Your task to perform on an android device: Search for usb-c on target.com, select the first entry, add it to the cart, then select checkout. Image 0: 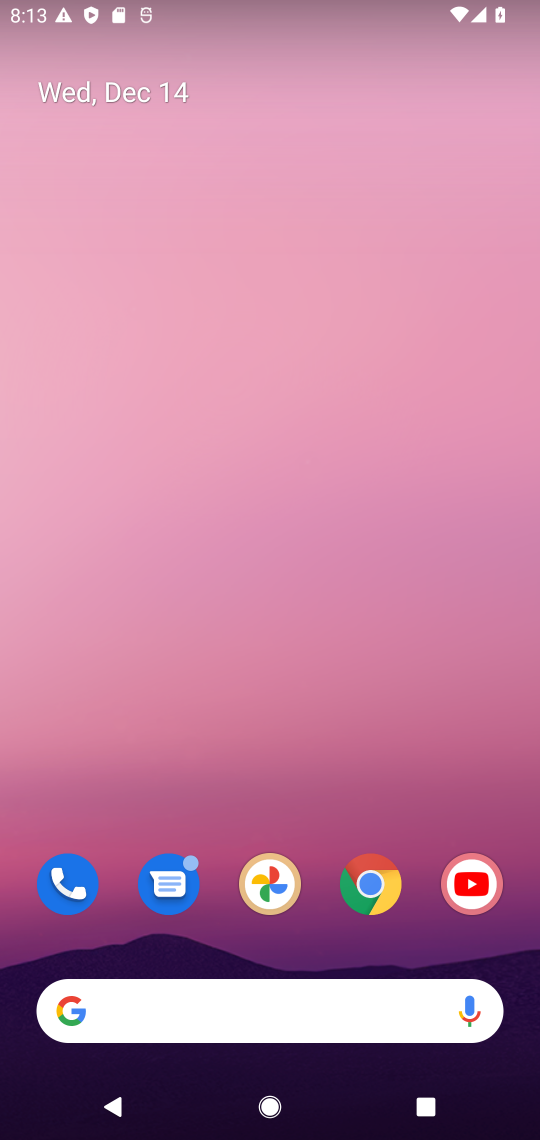
Step 0: click (365, 874)
Your task to perform on an android device: Search for usb-c on target.com, select the first entry, add it to the cart, then select checkout. Image 1: 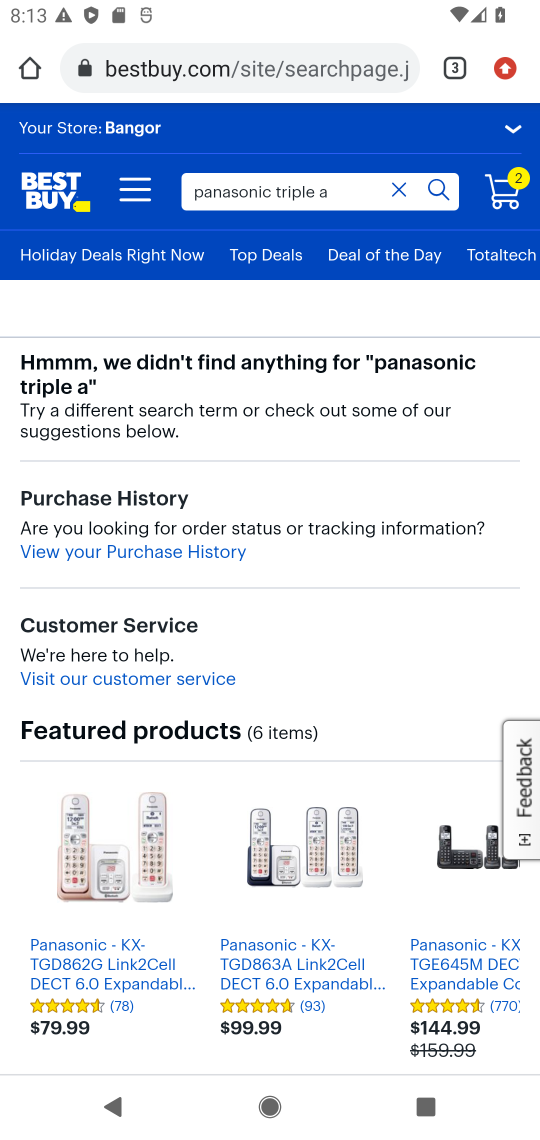
Step 1: click (468, 65)
Your task to perform on an android device: Search for usb-c on target.com, select the first entry, add it to the cart, then select checkout. Image 2: 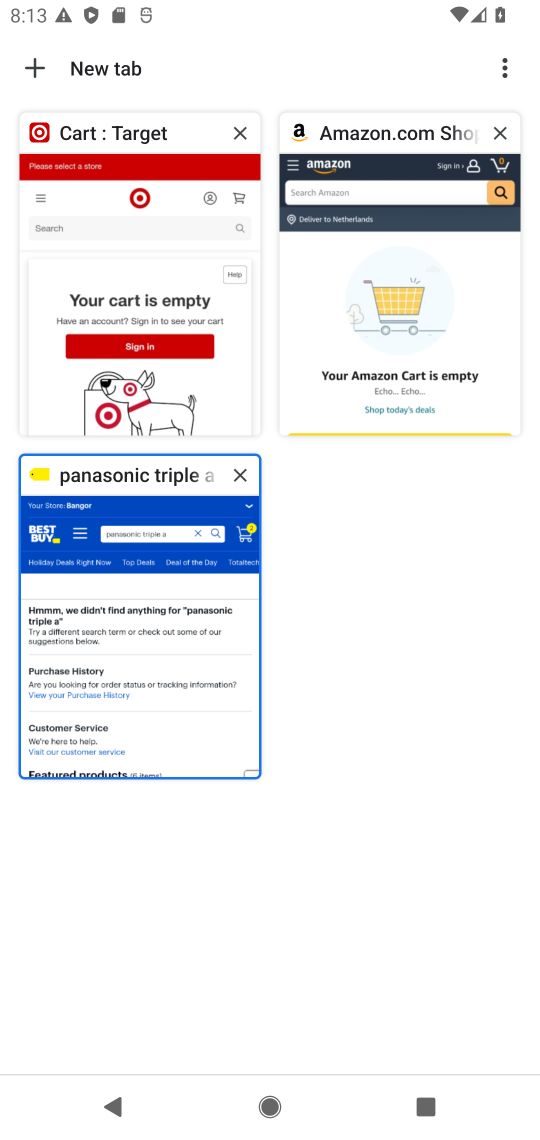
Step 2: click (75, 219)
Your task to perform on an android device: Search for usb-c on target.com, select the first entry, add it to the cart, then select checkout. Image 3: 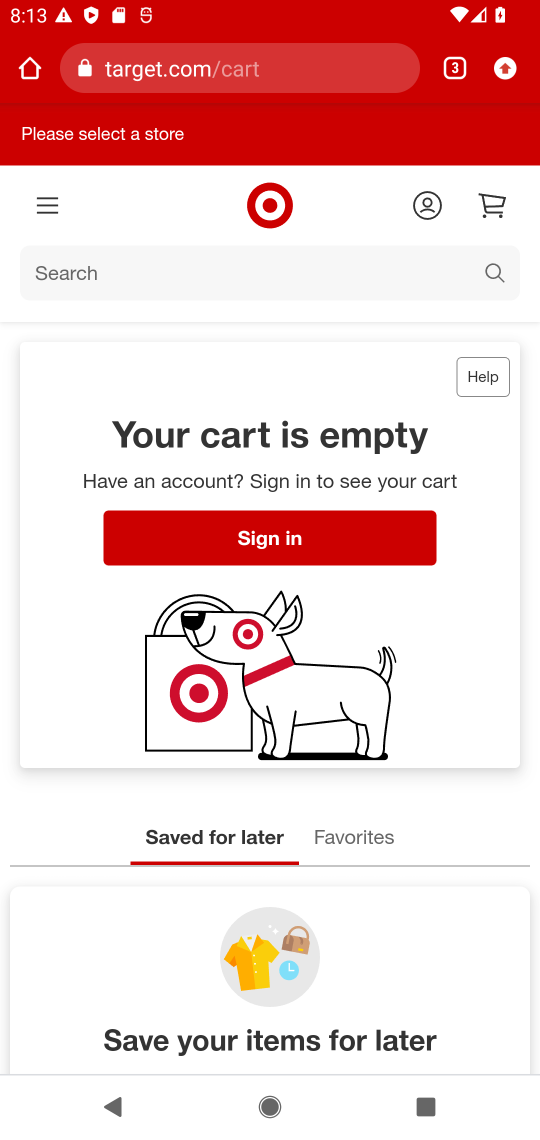
Step 3: click (201, 277)
Your task to perform on an android device: Search for usb-c on target.com, select the first entry, add it to the cart, then select checkout. Image 4: 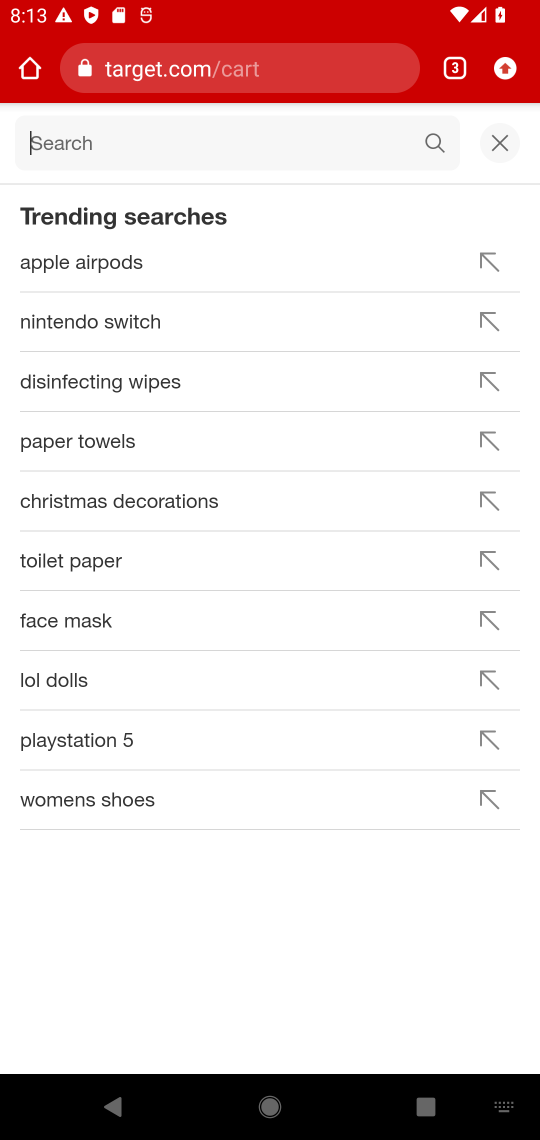
Step 4: type "usb-c"
Your task to perform on an android device: Search for usb-c on target.com, select the first entry, add it to the cart, then select checkout. Image 5: 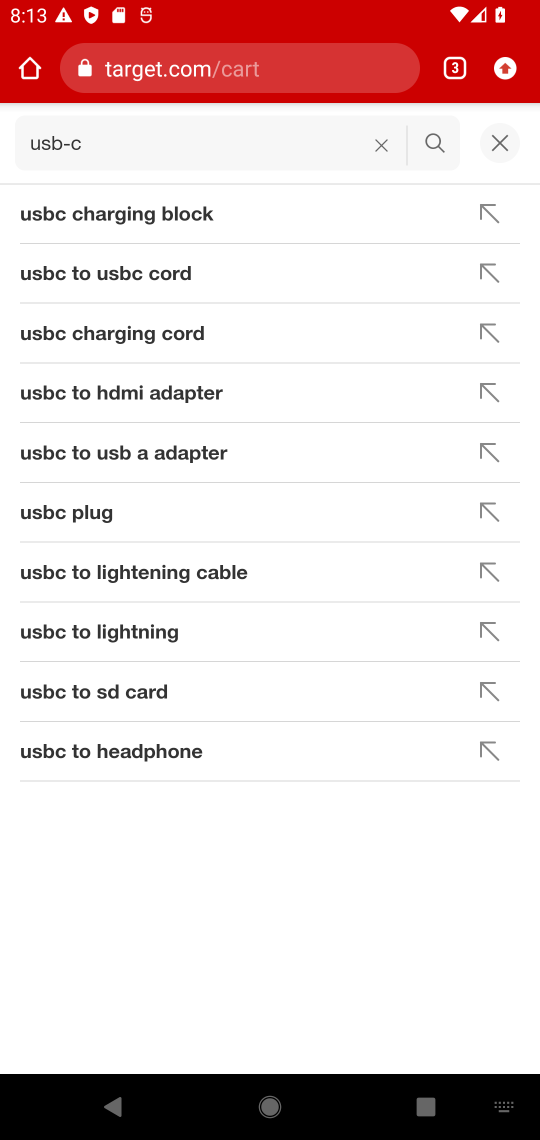
Step 5: click (437, 143)
Your task to perform on an android device: Search for usb-c on target.com, select the first entry, add it to the cart, then select checkout. Image 6: 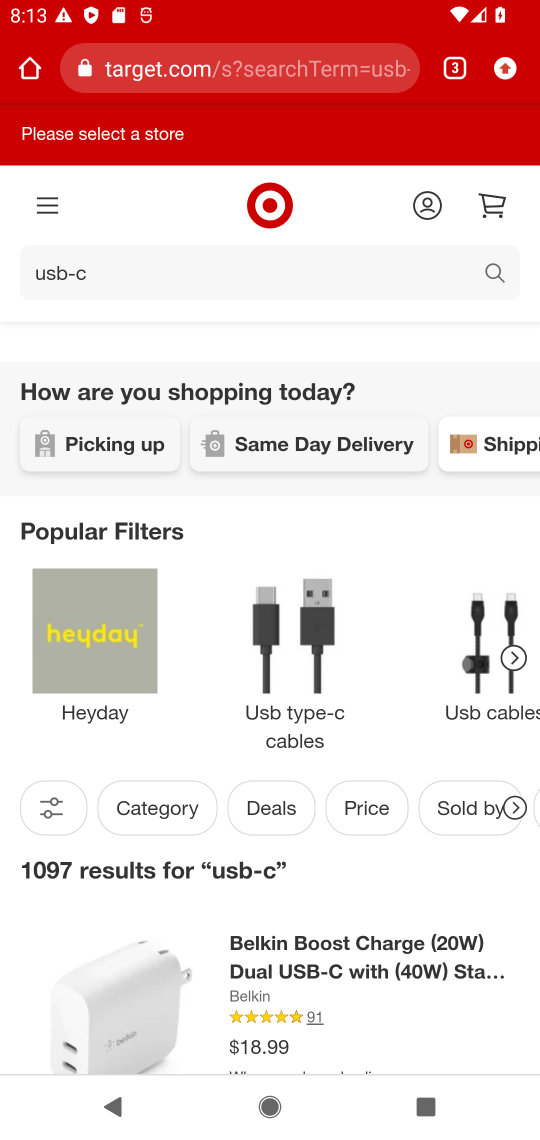
Step 6: click (314, 968)
Your task to perform on an android device: Search for usb-c on target.com, select the first entry, add it to the cart, then select checkout. Image 7: 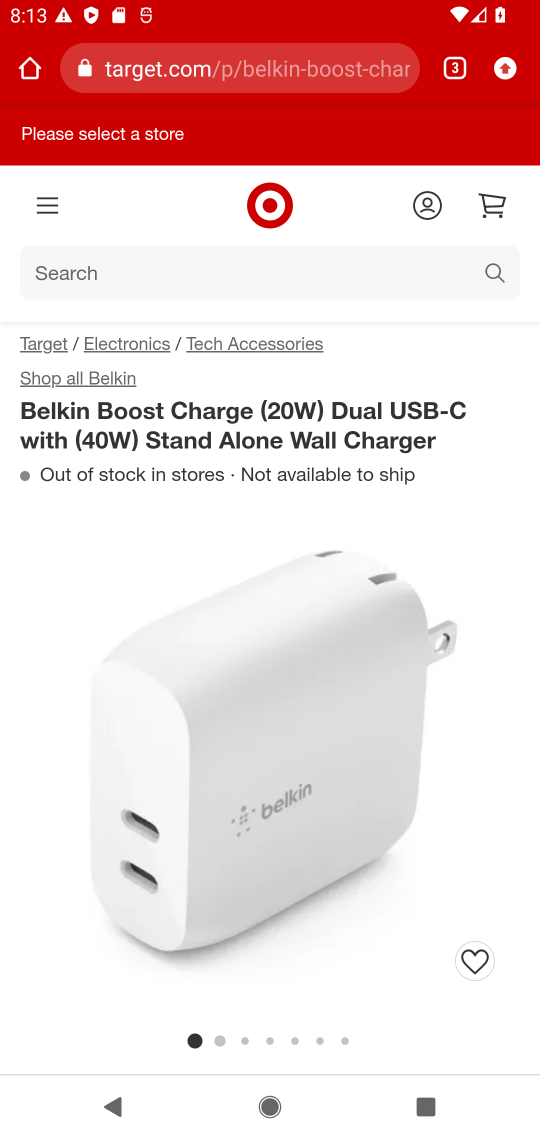
Step 7: drag from (325, 1026) to (409, 484)
Your task to perform on an android device: Search for usb-c on target.com, select the first entry, add it to the cart, then select checkout. Image 8: 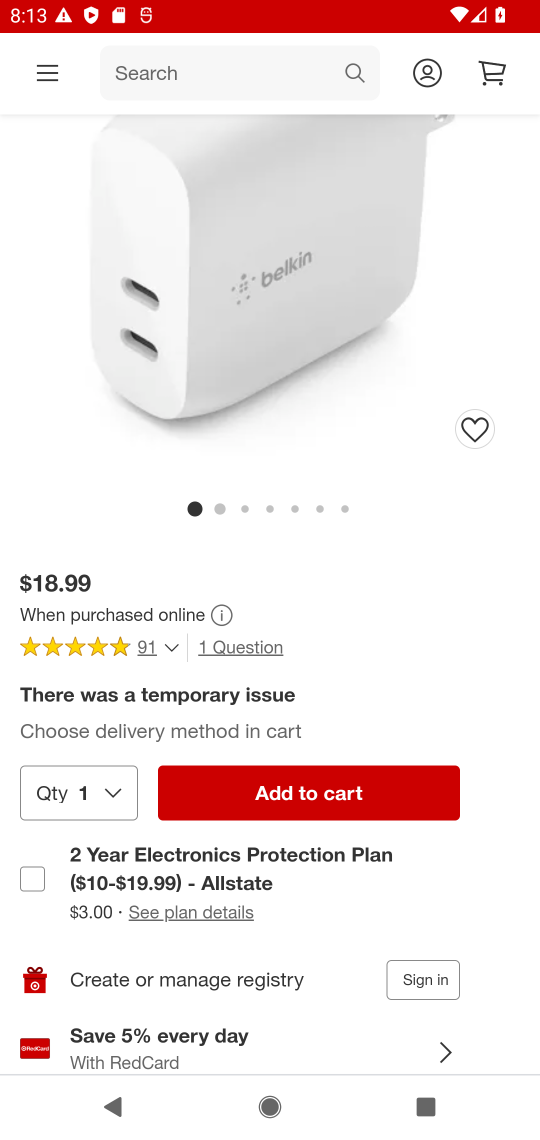
Step 8: click (367, 795)
Your task to perform on an android device: Search for usb-c on target.com, select the first entry, add it to the cart, then select checkout. Image 9: 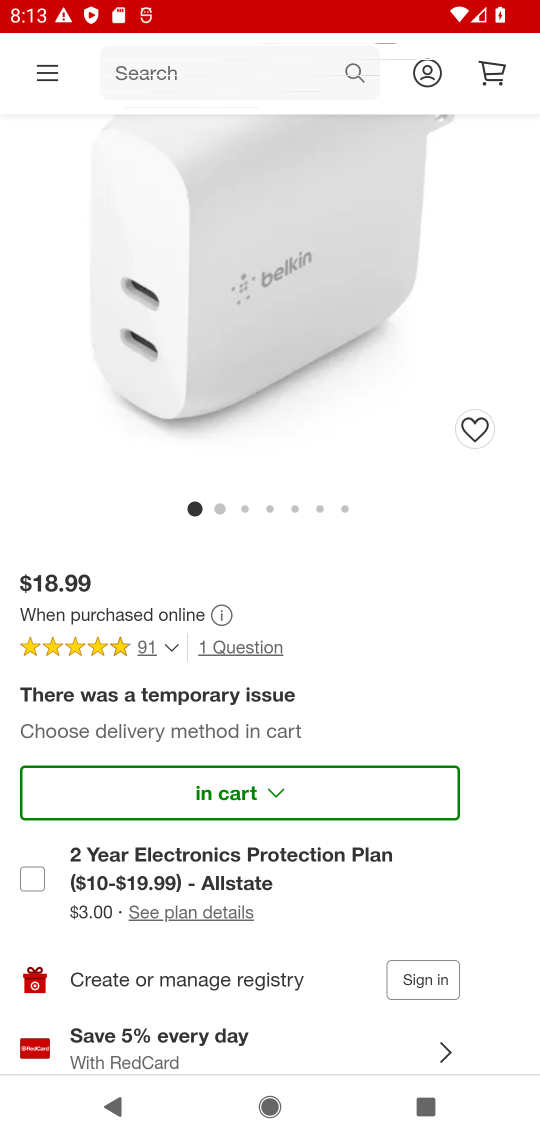
Step 9: task complete